Your task to perform on an android device: Open Youtube and go to the subscriptions tab Image 0: 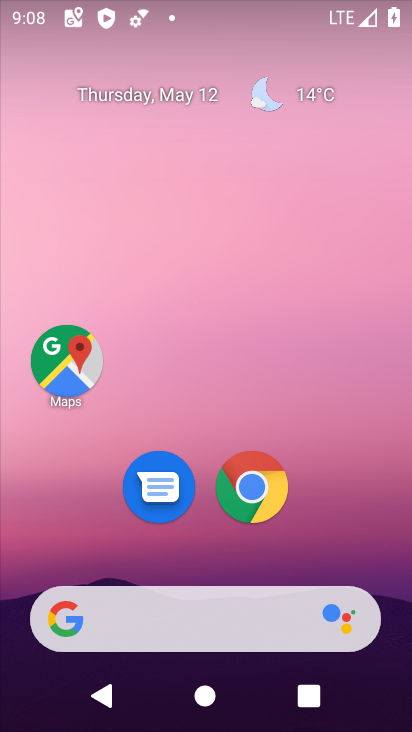
Step 0: drag from (32, 531) to (181, 187)
Your task to perform on an android device: Open Youtube and go to the subscriptions tab Image 1: 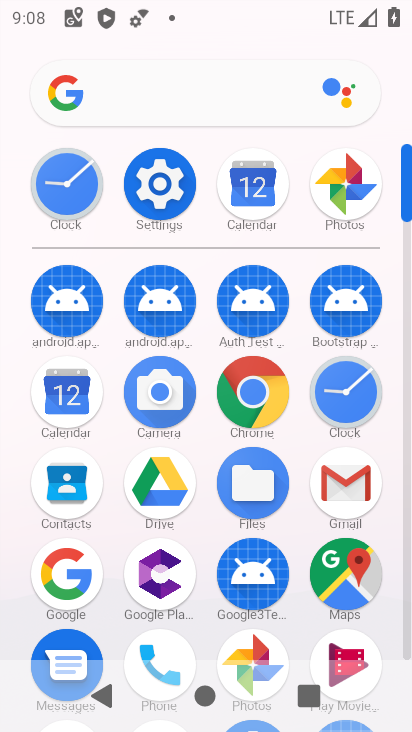
Step 1: drag from (36, 728) to (184, 235)
Your task to perform on an android device: Open Youtube and go to the subscriptions tab Image 2: 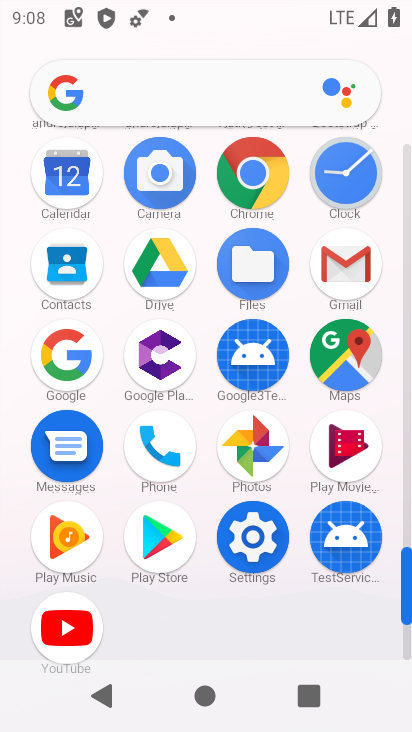
Step 2: click (82, 632)
Your task to perform on an android device: Open Youtube and go to the subscriptions tab Image 3: 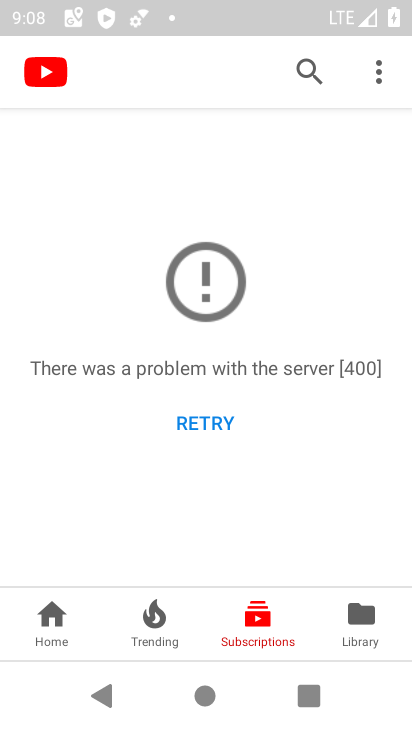
Step 3: click (250, 622)
Your task to perform on an android device: Open Youtube and go to the subscriptions tab Image 4: 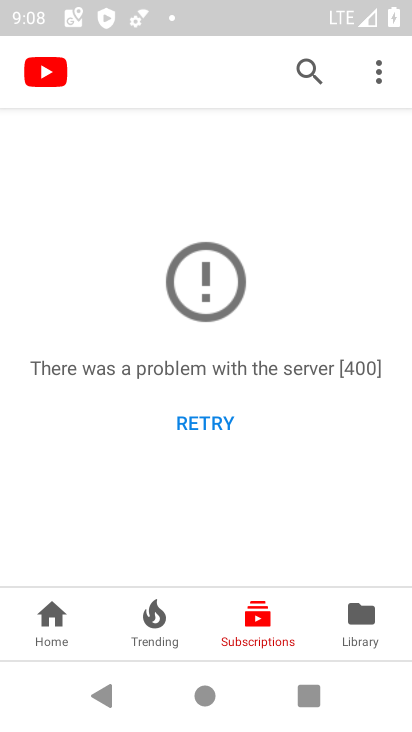
Step 4: task complete